Your task to perform on an android device: Set the phone to "Do not disturb". Image 0: 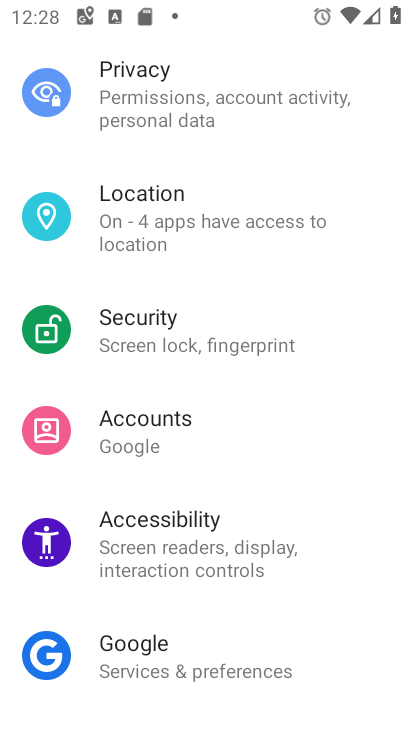
Step 0: press home button
Your task to perform on an android device: Set the phone to "Do not disturb". Image 1: 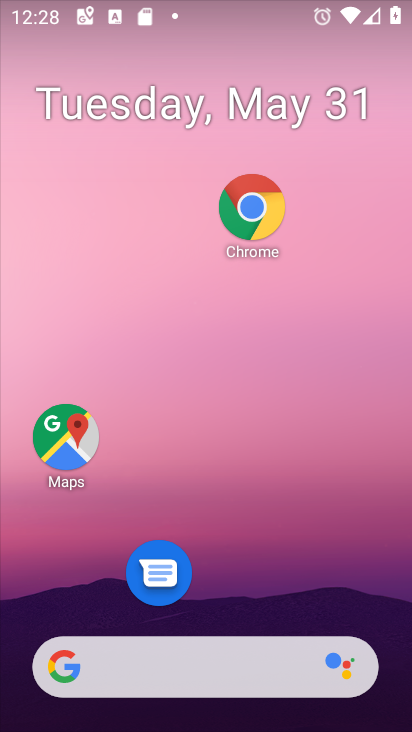
Step 1: drag from (242, 619) to (269, 158)
Your task to perform on an android device: Set the phone to "Do not disturb". Image 2: 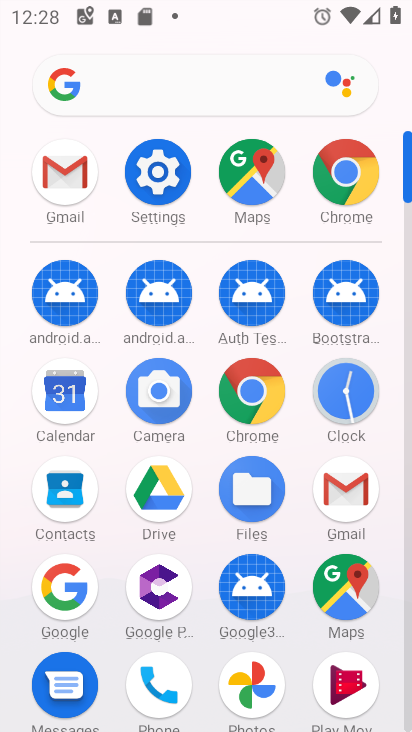
Step 2: drag from (246, 62) to (210, 494)
Your task to perform on an android device: Set the phone to "Do not disturb". Image 3: 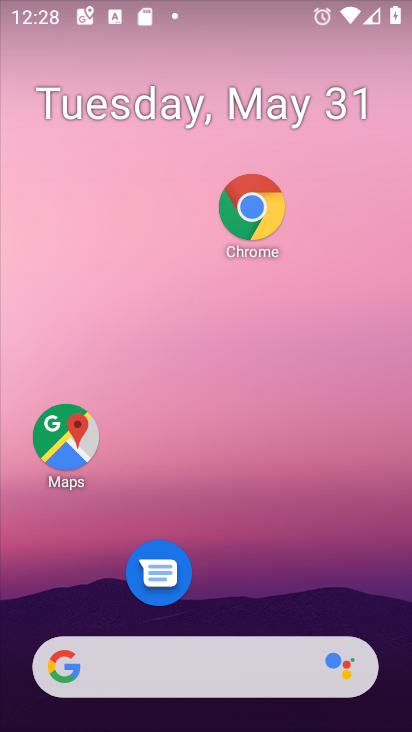
Step 3: drag from (264, 9) to (204, 517)
Your task to perform on an android device: Set the phone to "Do not disturb". Image 4: 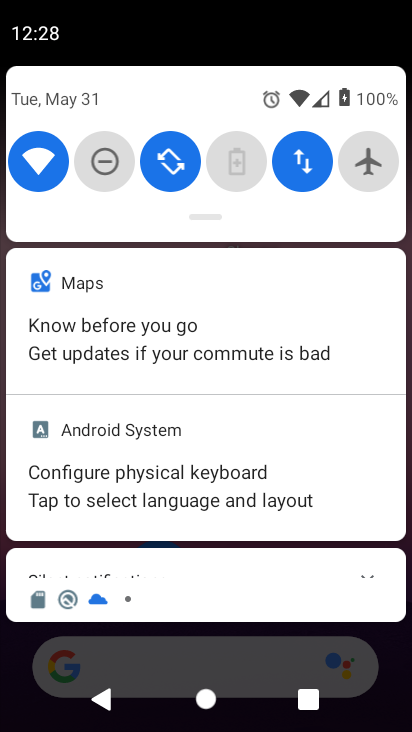
Step 4: click (120, 157)
Your task to perform on an android device: Set the phone to "Do not disturb". Image 5: 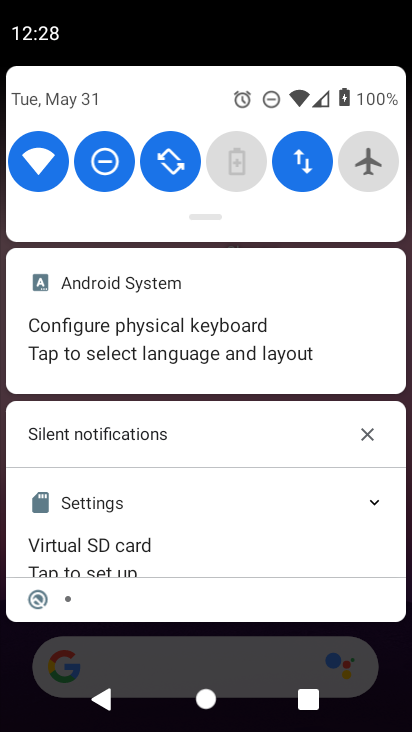
Step 5: task complete